Your task to perform on an android device: turn off translation in the chrome app Image 0: 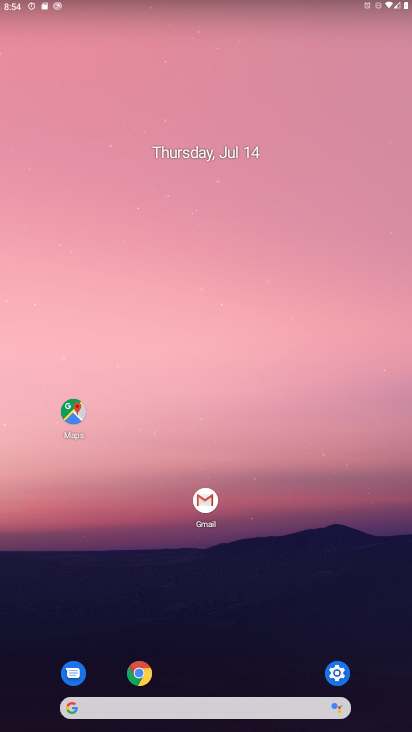
Step 0: press home button
Your task to perform on an android device: turn off translation in the chrome app Image 1: 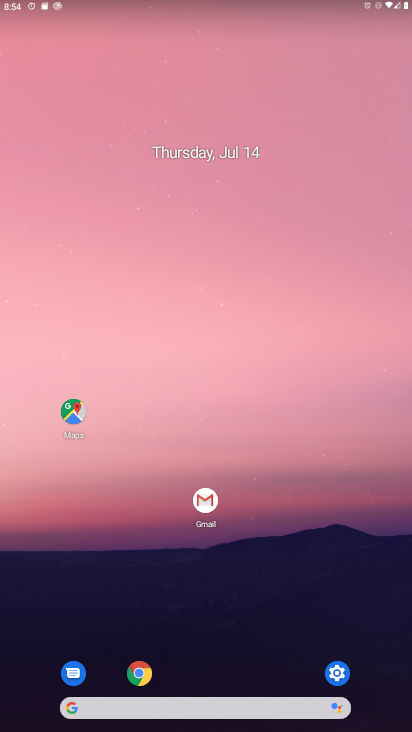
Step 1: click (142, 663)
Your task to perform on an android device: turn off translation in the chrome app Image 2: 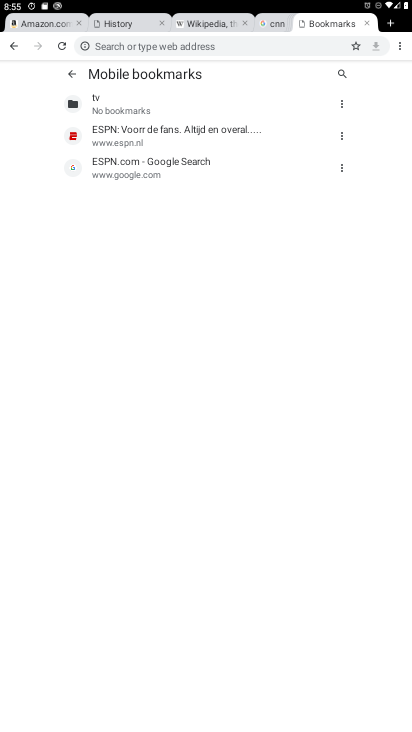
Step 2: click (398, 53)
Your task to perform on an android device: turn off translation in the chrome app Image 3: 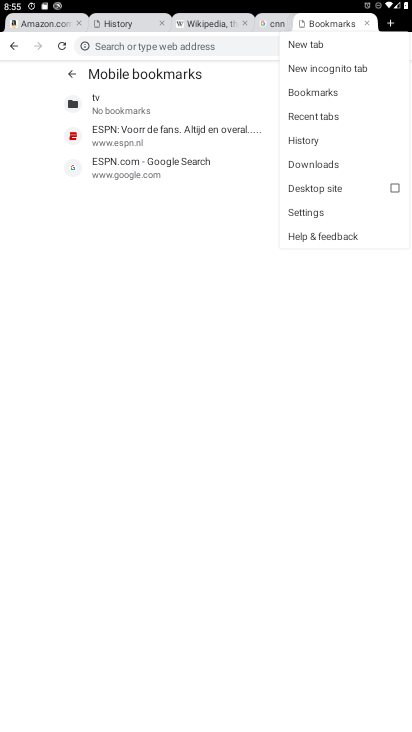
Step 3: click (304, 210)
Your task to perform on an android device: turn off translation in the chrome app Image 4: 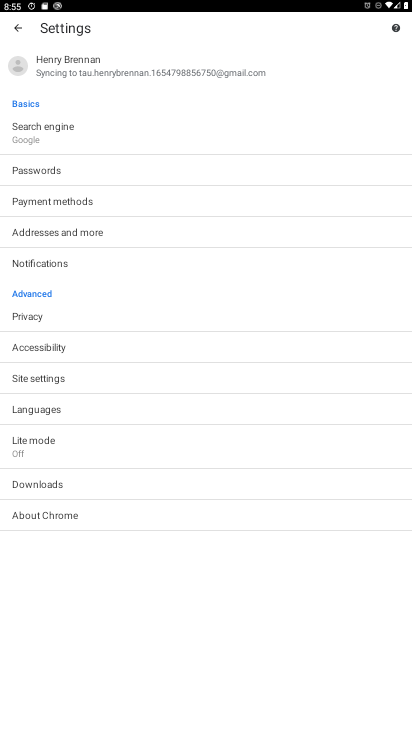
Step 4: click (53, 413)
Your task to perform on an android device: turn off translation in the chrome app Image 5: 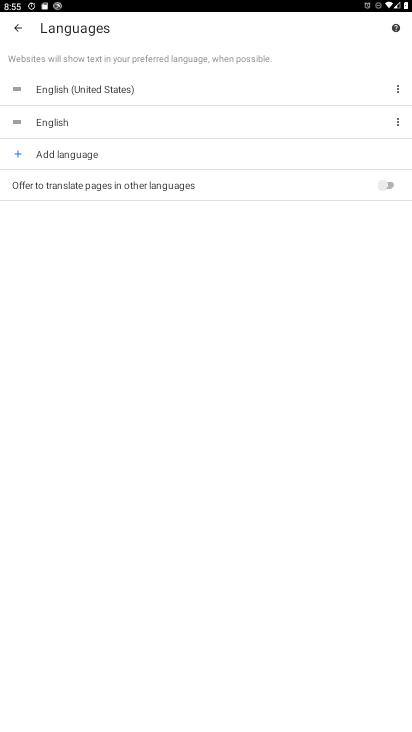
Step 5: click (374, 193)
Your task to perform on an android device: turn off translation in the chrome app Image 6: 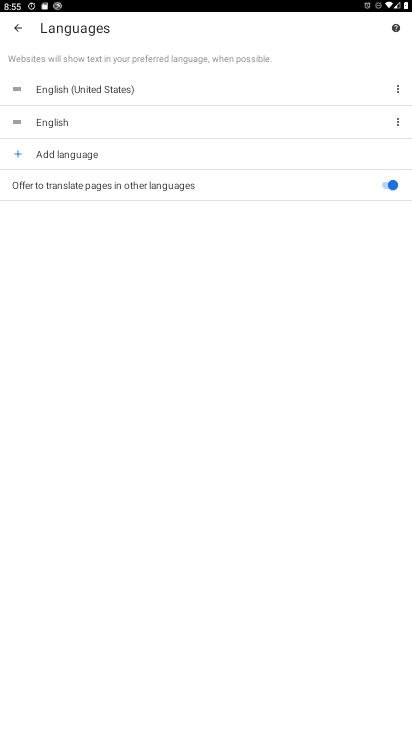
Step 6: click (374, 193)
Your task to perform on an android device: turn off translation in the chrome app Image 7: 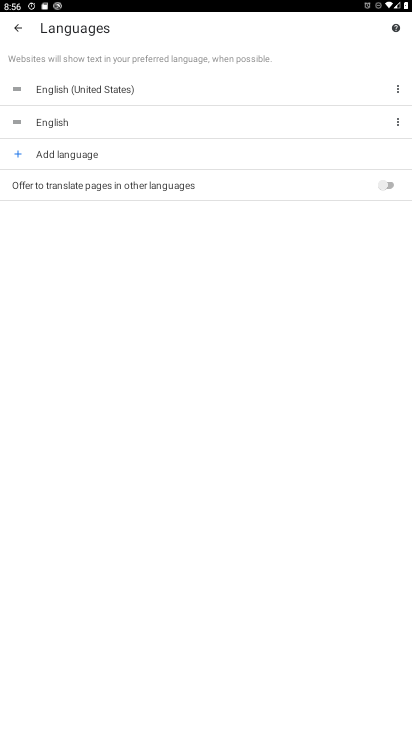
Step 7: task complete